Your task to perform on an android device: turn on the 12-hour format for clock Image 0: 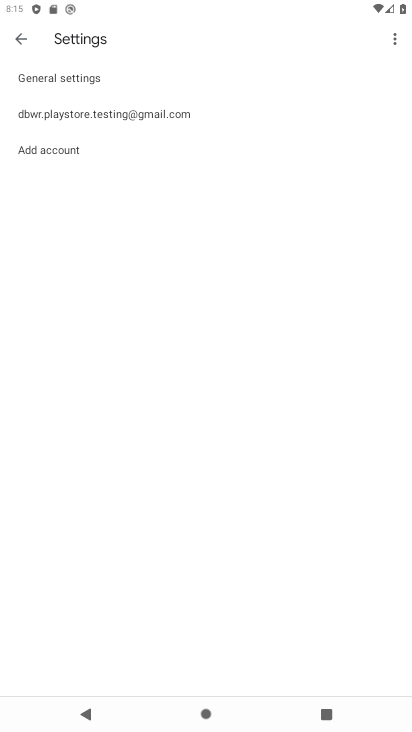
Step 0: press home button
Your task to perform on an android device: turn on the 12-hour format for clock Image 1: 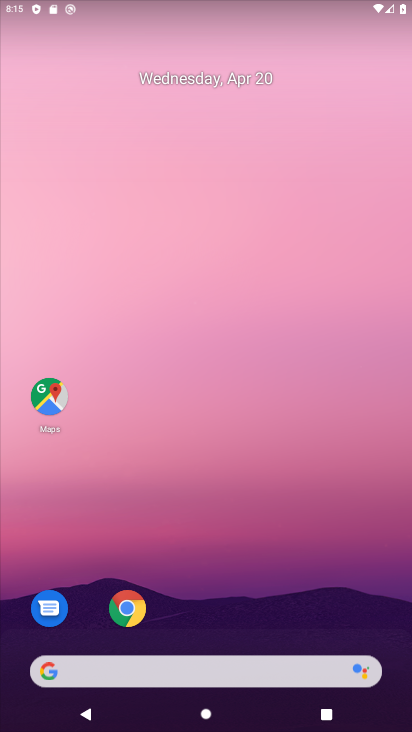
Step 1: drag from (253, 623) to (253, 573)
Your task to perform on an android device: turn on the 12-hour format for clock Image 2: 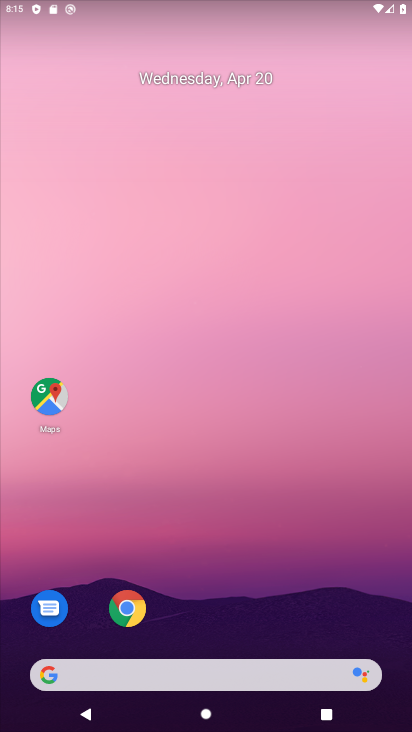
Step 2: drag from (250, 489) to (198, 27)
Your task to perform on an android device: turn on the 12-hour format for clock Image 3: 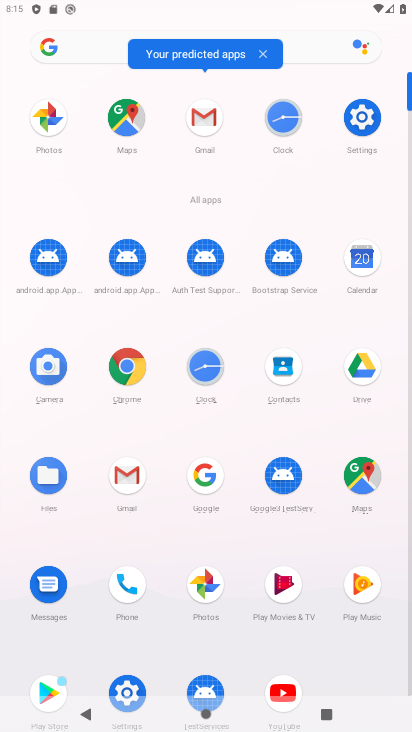
Step 3: click (366, 98)
Your task to perform on an android device: turn on the 12-hour format for clock Image 4: 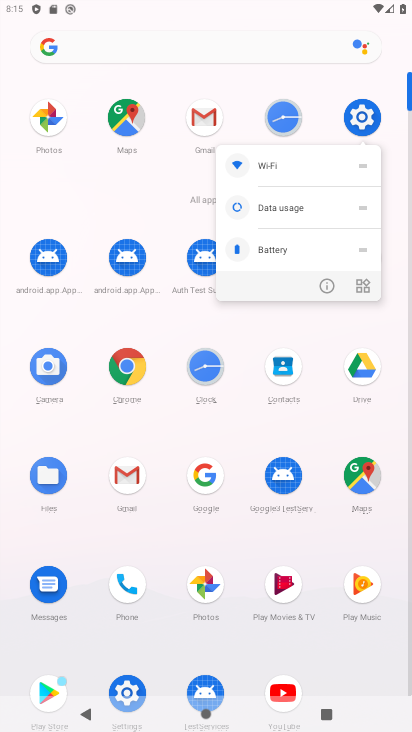
Step 4: click (366, 103)
Your task to perform on an android device: turn on the 12-hour format for clock Image 5: 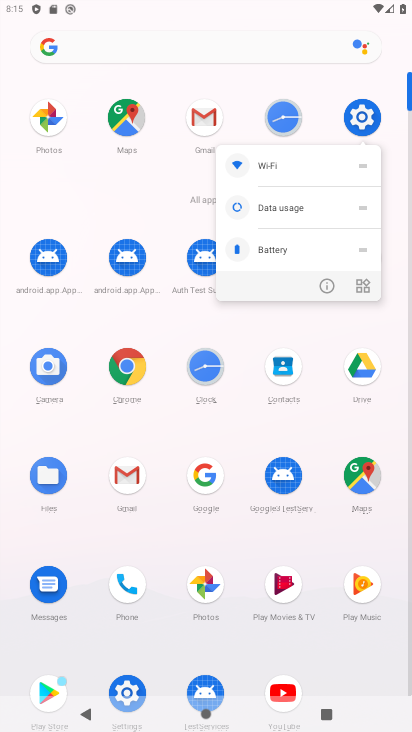
Step 5: click (366, 103)
Your task to perform on an android device: turn on the 12-hour format for clock Image 6: 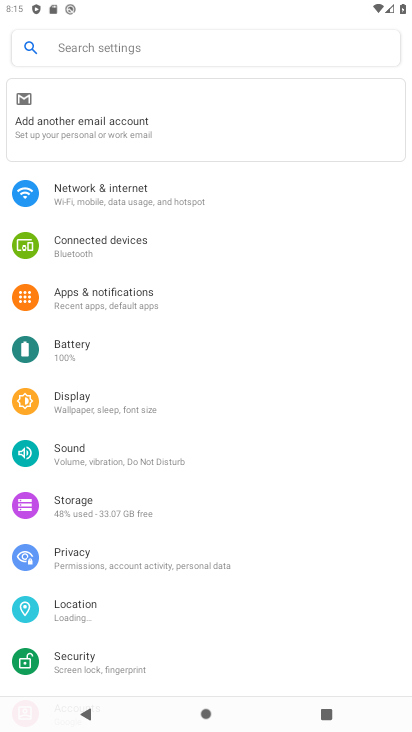
Step 6: press home button
Your task to perform on an android device: turn on the 12-hour format for clock Image 7: 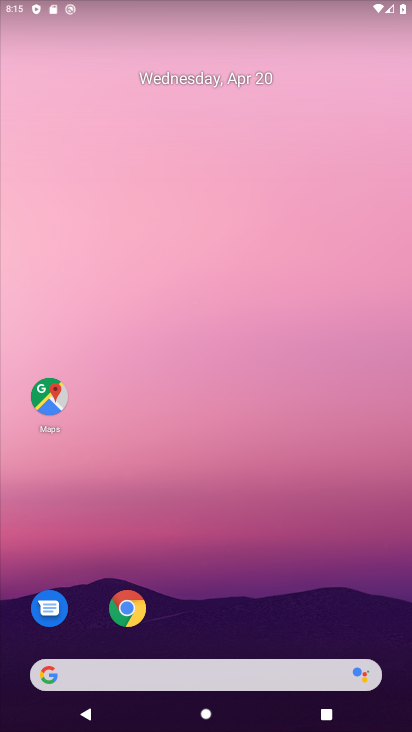
Step 7: drag from (303, 614) to (148, 50)
Your task to perform on an android device: turn on the 12-hour format for clock Image 8: 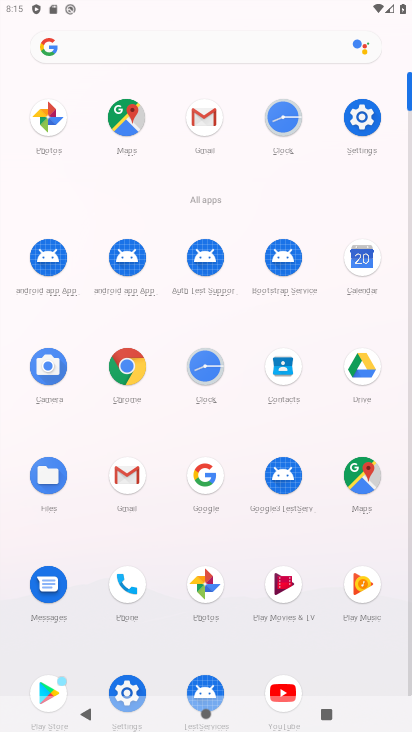
Step 8: click (271, 127)
Your task to perform on an android device: turn on the 12-hour format for clock Image 9: 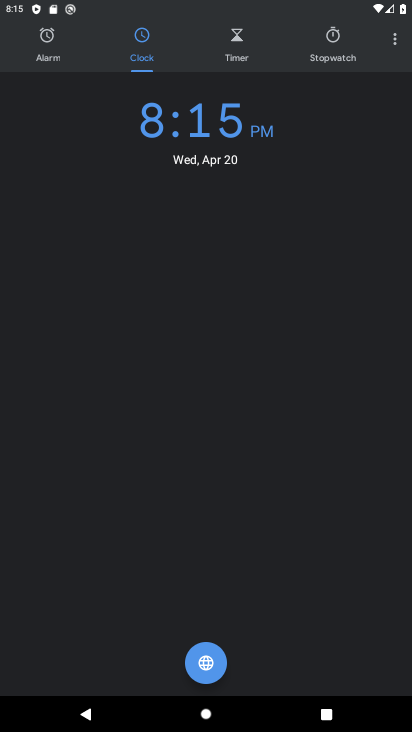
Step 9: click (401, 37)
Your task to perform on an android device: turn on the 12-hour format for clock Image 10: 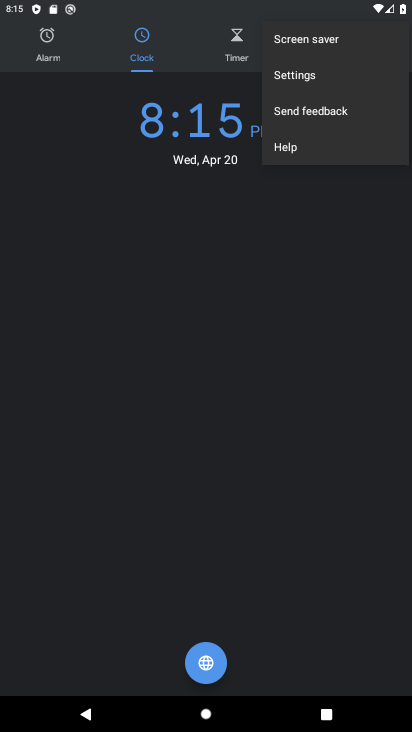
Step 10: click (316, 81)
Your task to perform on an android device: turn on the 12-hour format for clock Image 11: 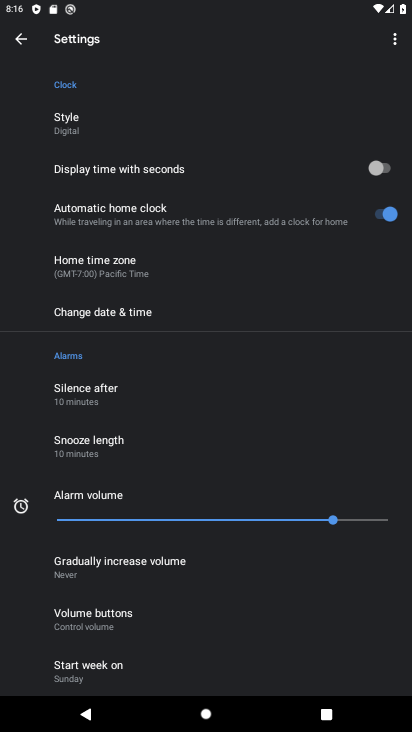
Step 11: click (108, 319)
Your task to perform on an android device: turn on the 12-hour format for clock Image 12: 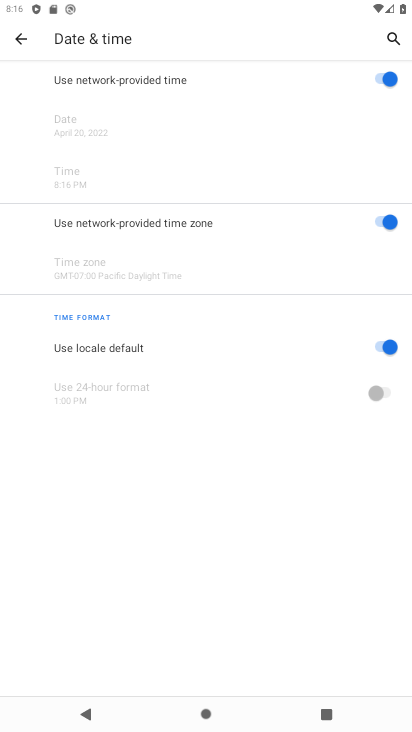
Step 12: click (389, 354)
Your task to perform on an android device: turn on the 12-hour format for clock Image 13: 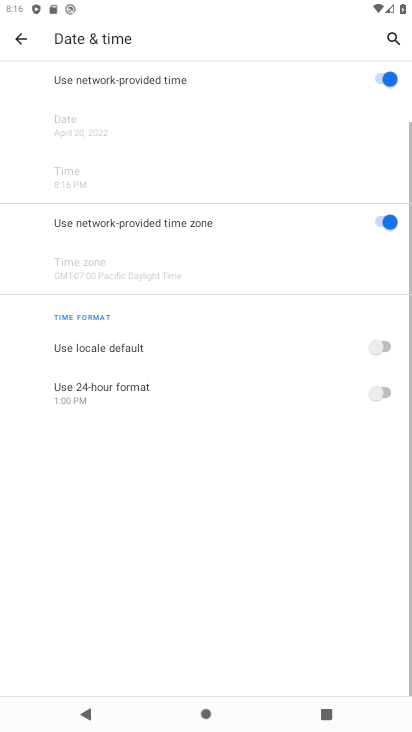
Step 13: click (384, 401)
Your task to perform on an android device: turn on the 12-hour format for clock Image 14: 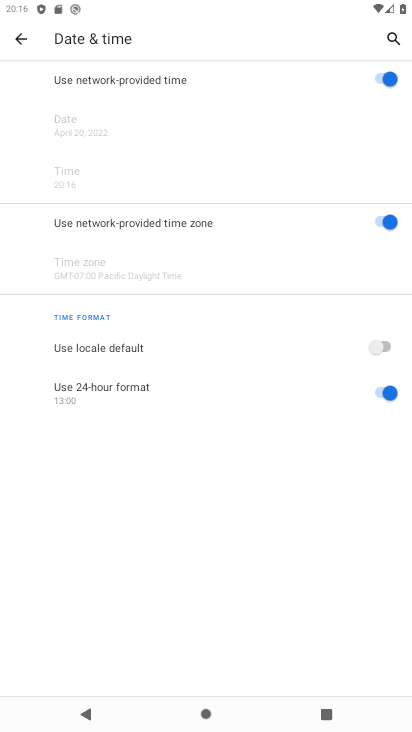
Step 14: task complete